Your task to perform on an android device: toggle location history Image 0: 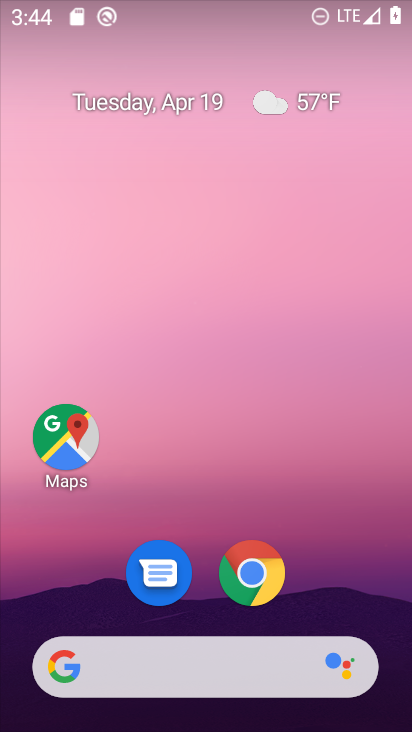
Step 0: drag from (346, 598) to (345, 8)
Your task to perform on an android device: toggle location history Image 1: 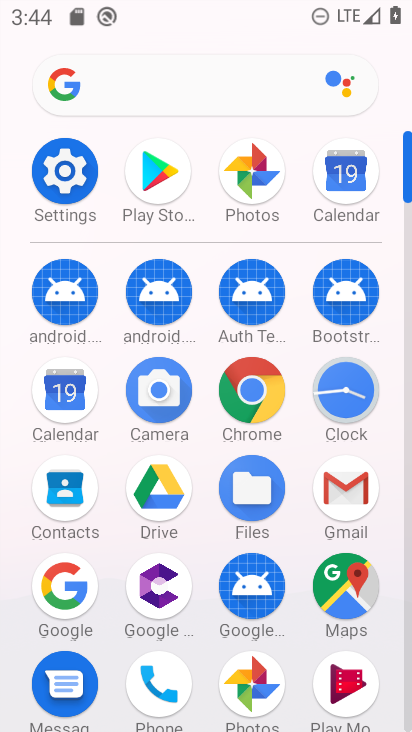
Step 1: click (349, 593)
Your task to perform on an android device: toggle location history Image 2: 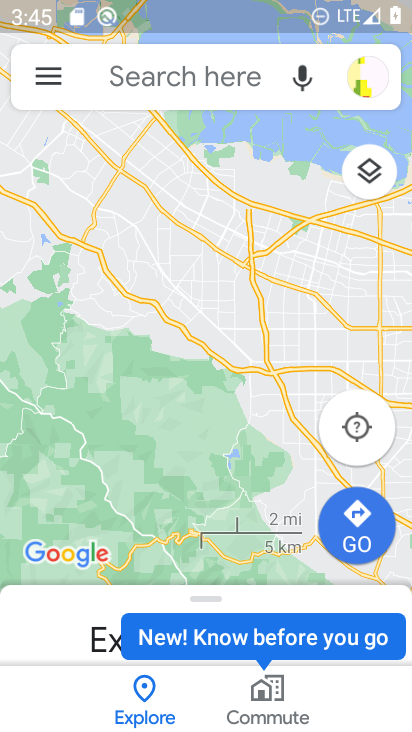
Step 2: click (45, 85)
Your task to perform on an android device: toggle location history Image 3: 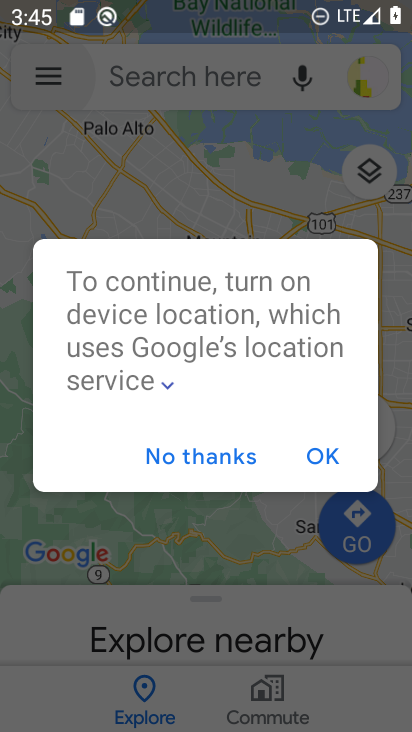
Step 3: click (315, 455)
Your task to perform on an android device: toggle location history Image 4: 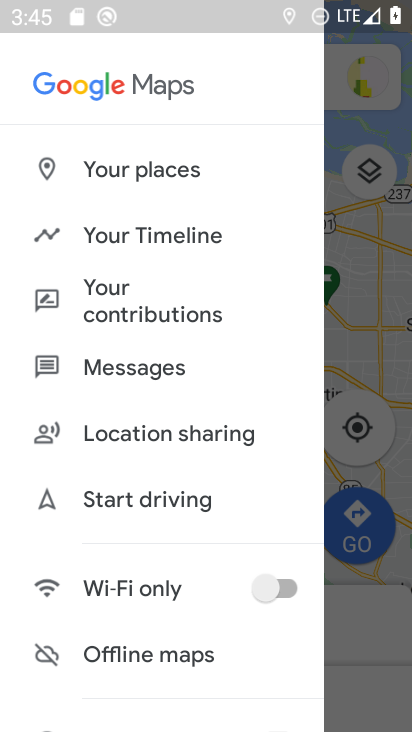
Step 4: click (115, 242)
Your task to perform on an android device: toggle location history Image 5: 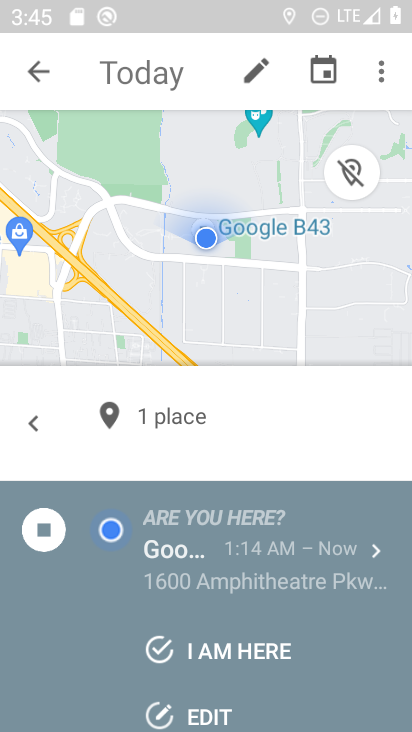
Step 5: click (376, 77)
Your task to perform on an android device: toggle location history Image 6: 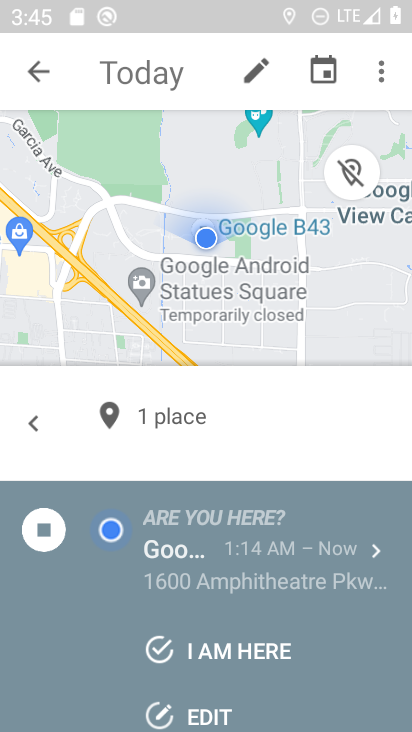
Step 6: click (385, 73)
Your task to perform on an android device: toggle location history Image 7: 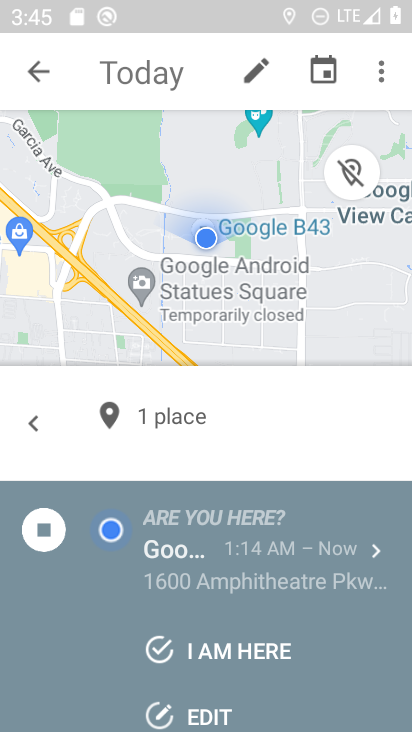
Step 7: click (381, 69)
Your task to perform on an android device: toggle location history Image 8: 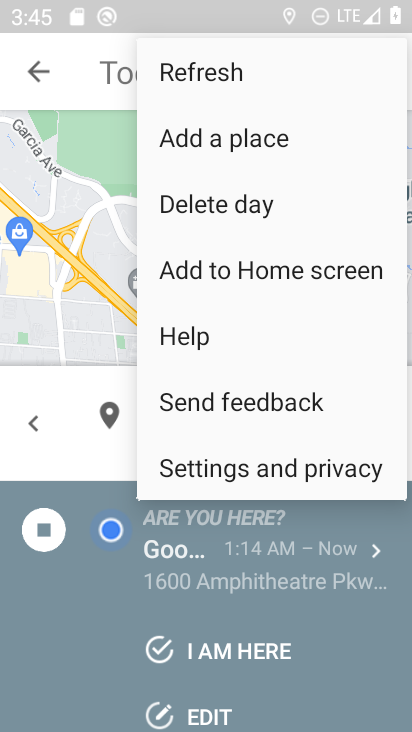
Step 8: click (248, 466)
Your task to perform on an android device: toggle location history Image 9: 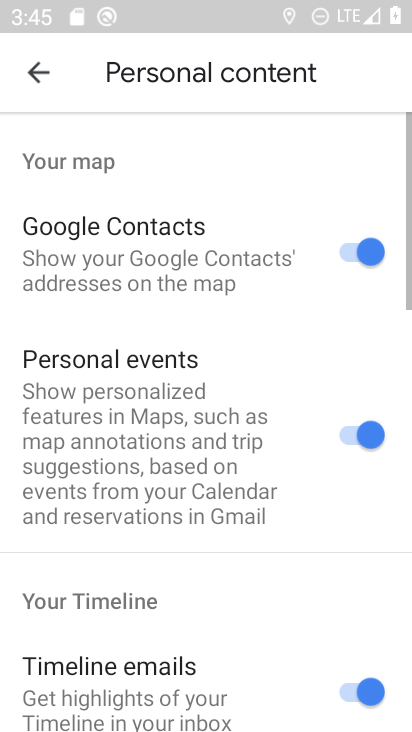
Step 9: drag from (191, 560) to (160, 136)
Your task to perform on an android device: toggle location history Image 10: 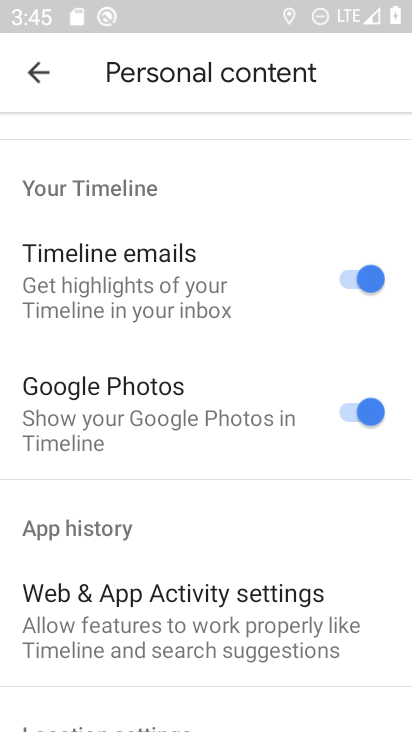
Step 10: drag from (145, 428) to (137, 59)
Your task to perform on an android device: toggle location history Image 11: 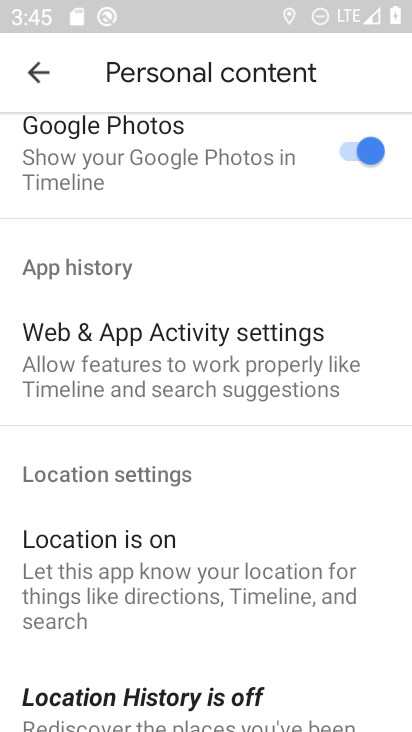
Step 11: drag from (149, 528) to (162, 116)
Your task to perform on an android device: toggle location history Image 12: 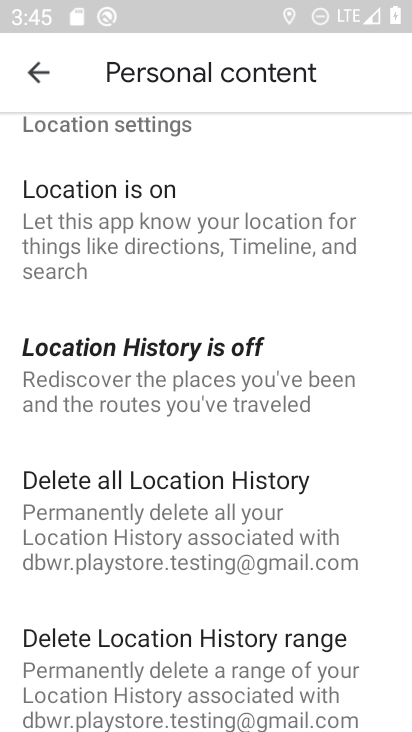
Step 12: click (145, 370)
Your task to perform on an android device: toggle location history Image 13: 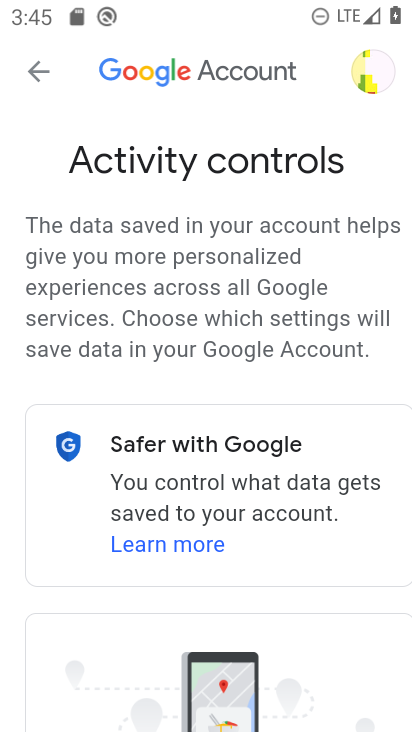
Step 13: drag from (204, 484) to (183, 158)
Your task to perform on an android device: toggle location history Image 14: 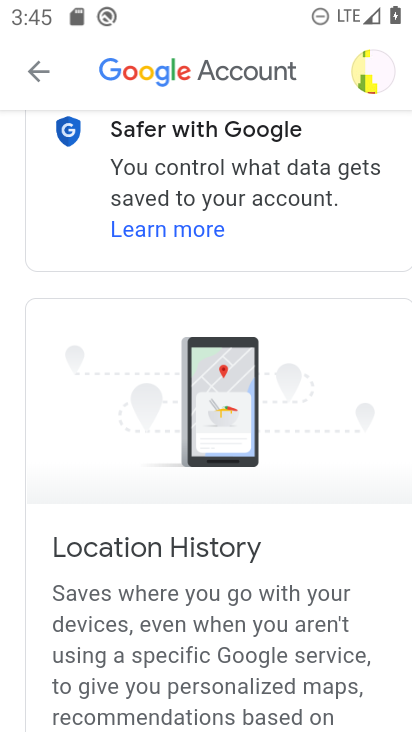
Step 14: drag from (211, 548) to (212, 203)
Your task to perform on an android device: toggle location history Image 15: 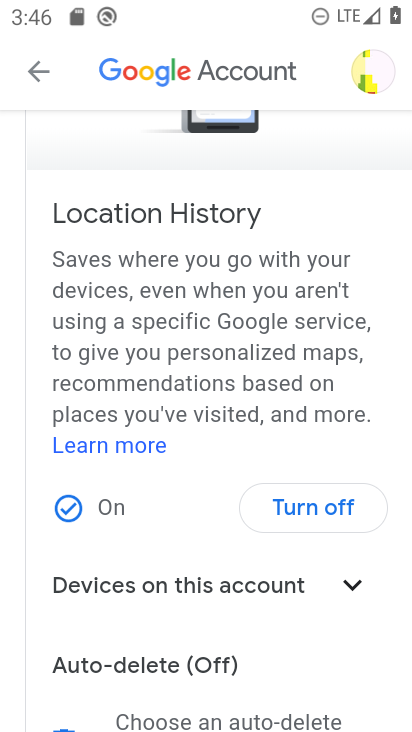
Step 15: click (303, 508)
Your task to perform on an android device: toggle location history Image 16: 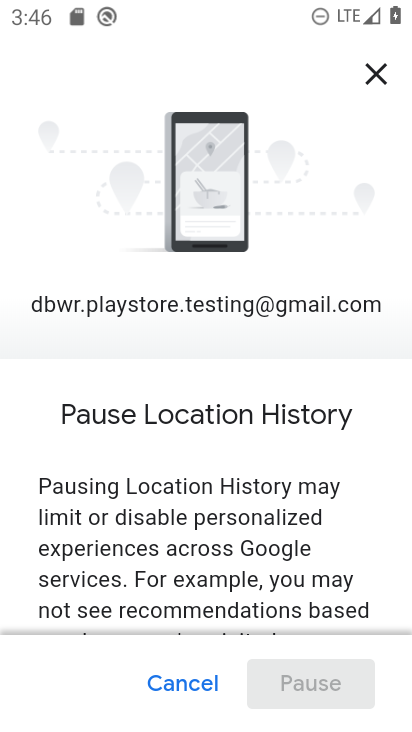
Step 16: drag from (213, 522) to (211, 93)
Your task to perform on an android device: toggle location history Image 17: 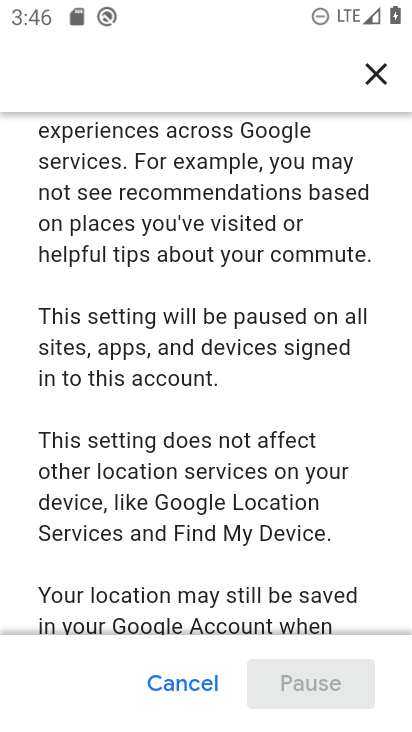
Step 17: drag from (223, 424) to (225, 113)
Your task to perform on an android device: toggle location history Image 18: 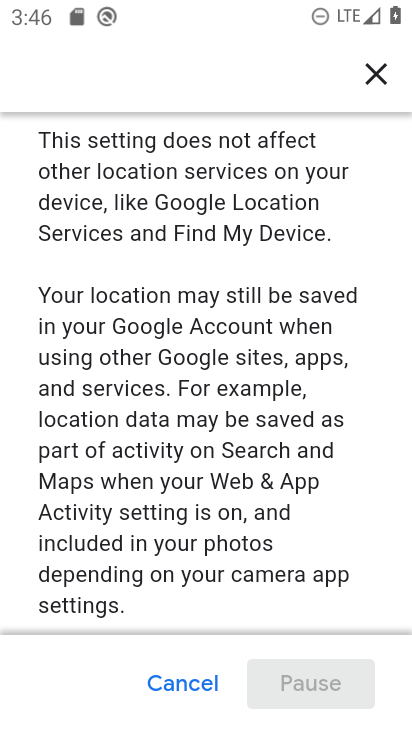
Step 18: drag from (213, 529) to (211, 97)
Your task to perform on an android device: toggle location history Image 19: 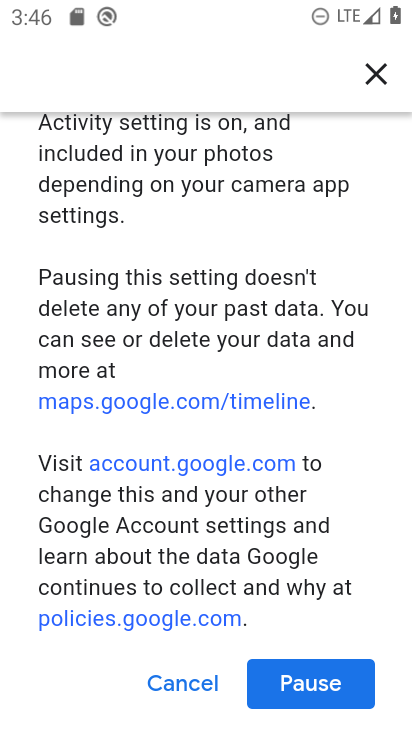
Step 19: click (312, 684)
Your task to perform on an android device: toggle location history Image 20: 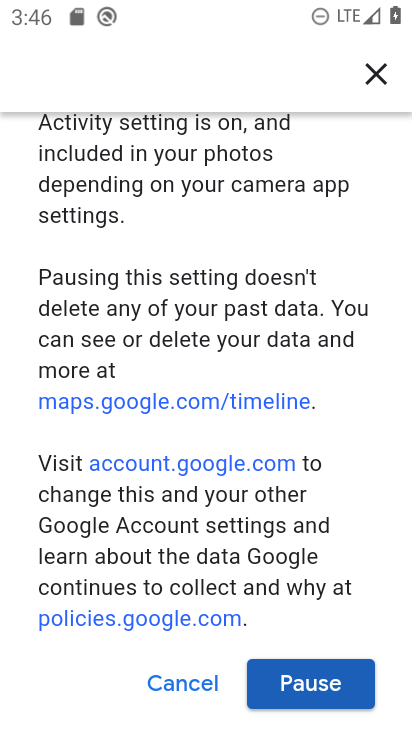
Step 20: drag from (209, 545) to (181, 251)
Your task to perform on an android device: toggle location history Image 21: 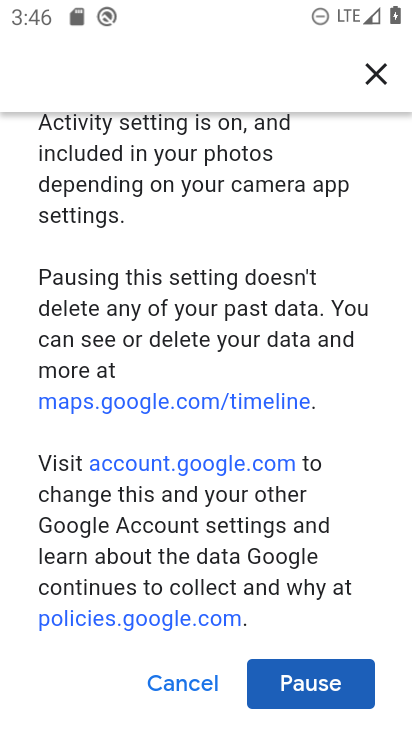
Step 21: click (303, 680)
Your task to perform on an android device: toggle location history Image 22: 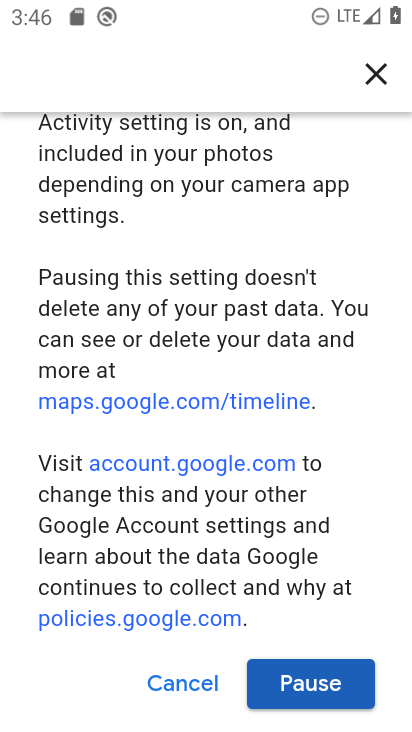
Step 22: click (315, 689)
Your task to perform on an android device: toggle location history Image 23: 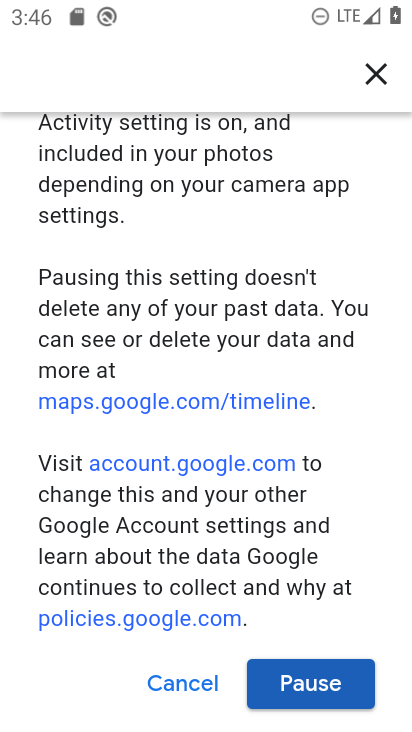
Step 23: click (322, 693)
Your task to perform on an android device: toggle location history Image 24: 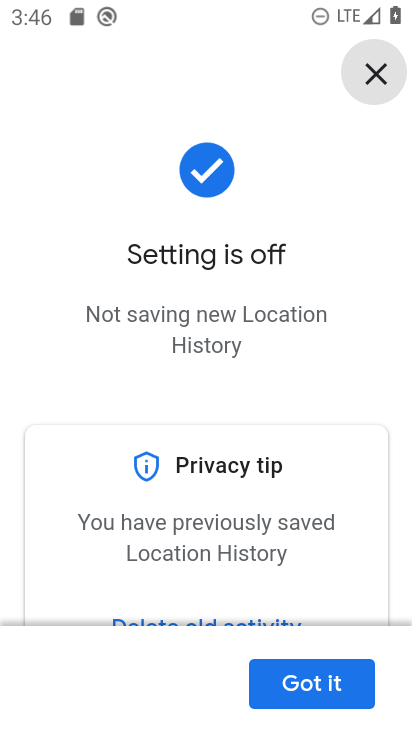
Step 24: click (298, 702)
Your task to perform on an android device: toggle location history Image 25: 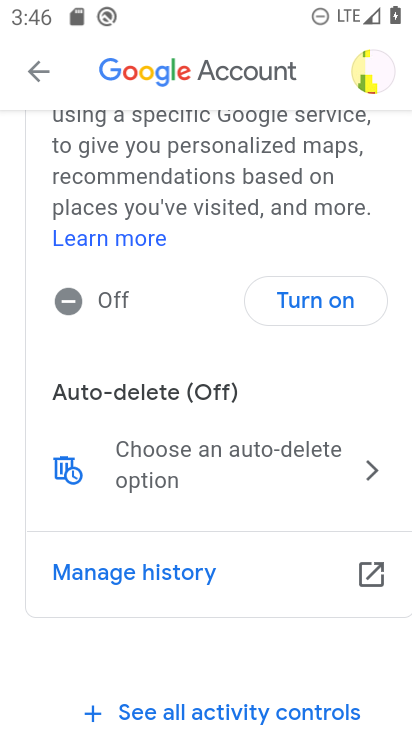
Step 25: task complete